Your task to perform on an android device: Open ESPN.com Image 0: 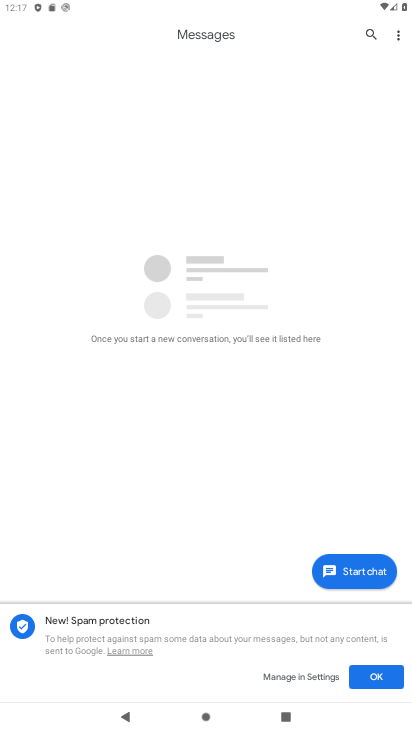
Step 0: press home button
Your task to perform on an android device: Open ESPN.com Image 1: 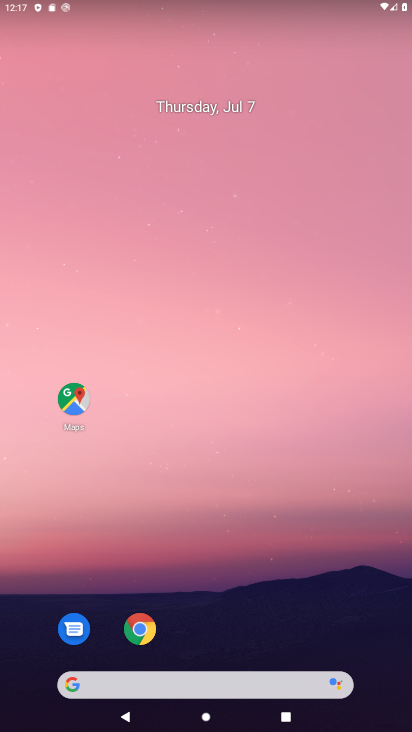
Step 1: click (145, 628)
Your task to perform on an android device: Open ESPN.com Image 2: 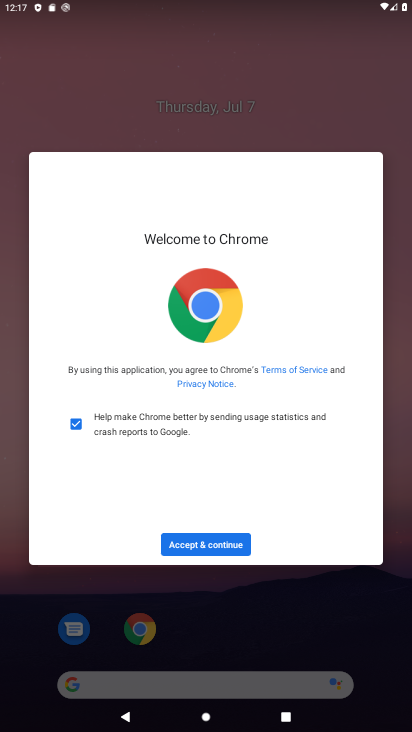
Step 2: click (208, 543)
Your task to perform on an android device: Open ESPN.com Image 3: 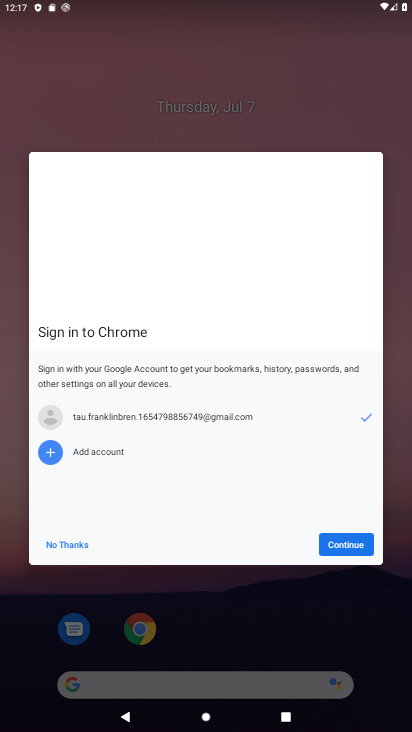
Step 3: click (348, 546)
Your task to perform on an android device: Open ESPN.com Image 4: 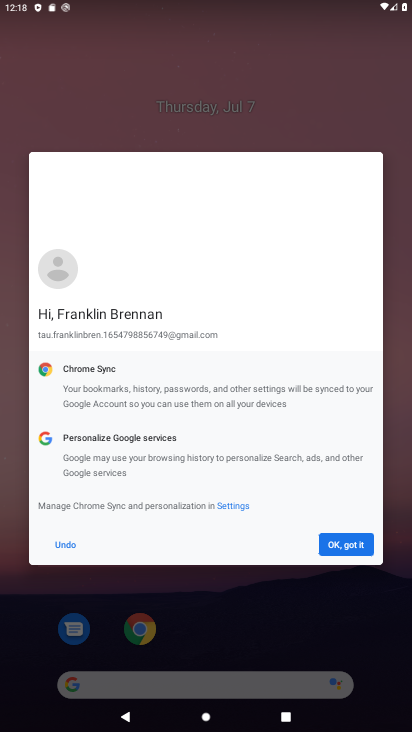
Step 4: click (348, 546)
Your task to perform on an android device: Open ESPN.com Image 5: 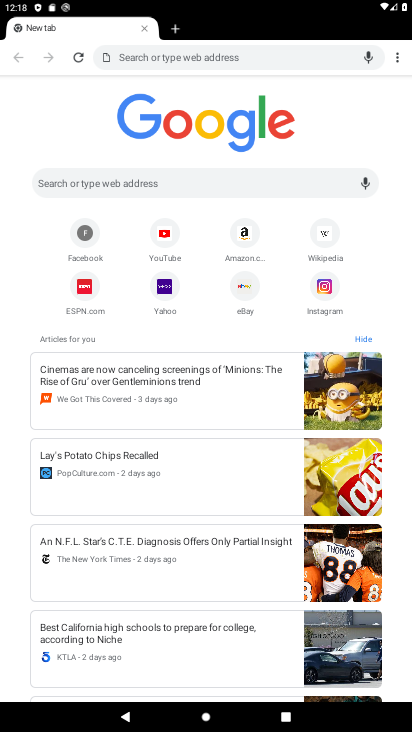
Step 5: click (83, 283)
Your task to perform on an android device: Open ESPN.com Image 6: 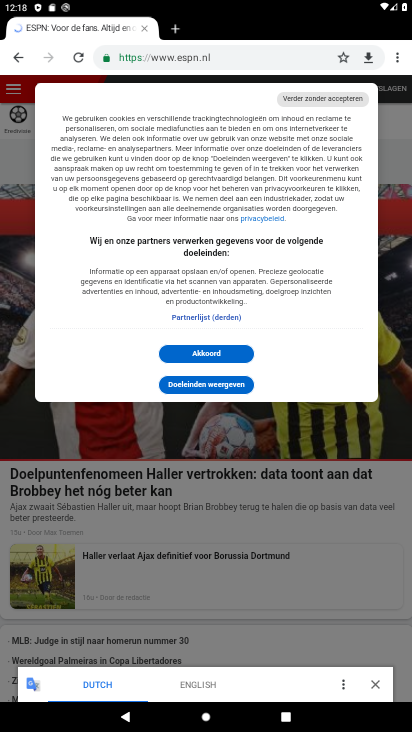
Step 6: click (222, 349)
Your task to perform on an android device: Open ESPN.com Image 7: 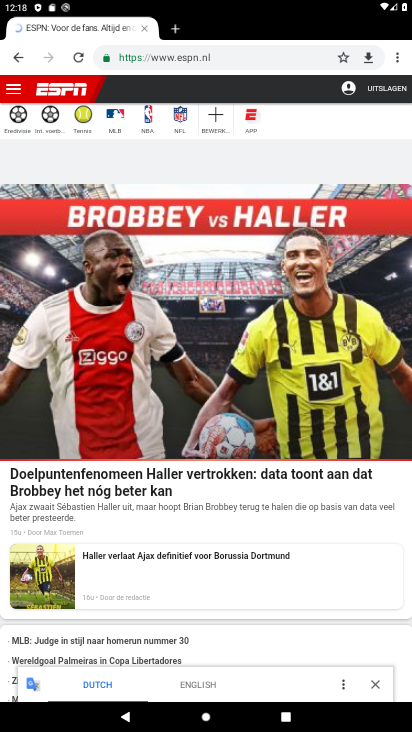
Step 7: task complete